Your task to perform on an android device: turn smart compose on in the gmail app Image 0: 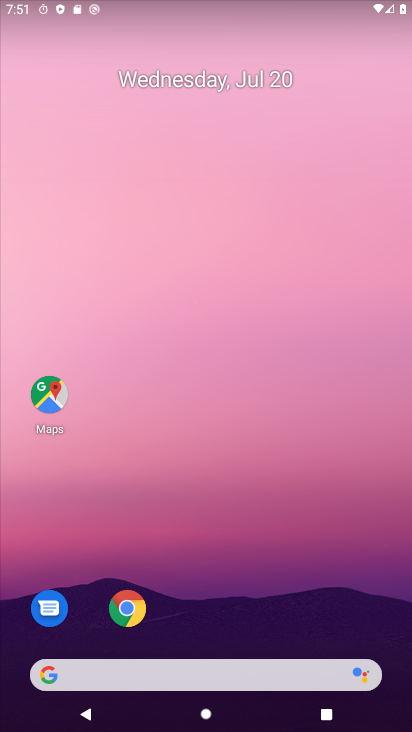
Step 0: drag from (211, 630) to (259, 151)
Your task to perform on an android device: turn smart compose on in the gmail app Image 1: 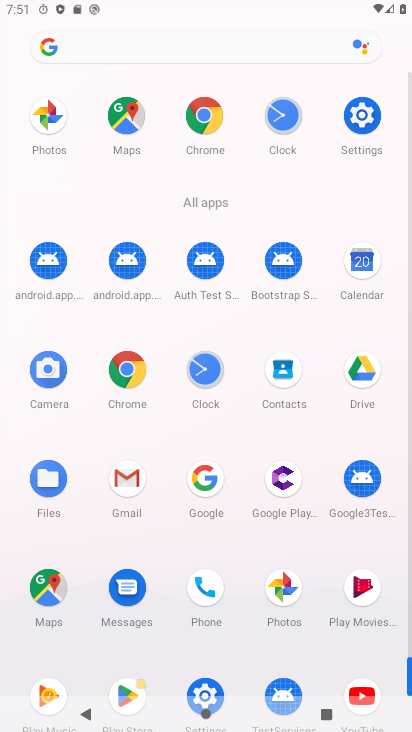
Step 1: click (122, 492)
Your task to perform on an android device: turn smart compose on in the gmail app Image 2: 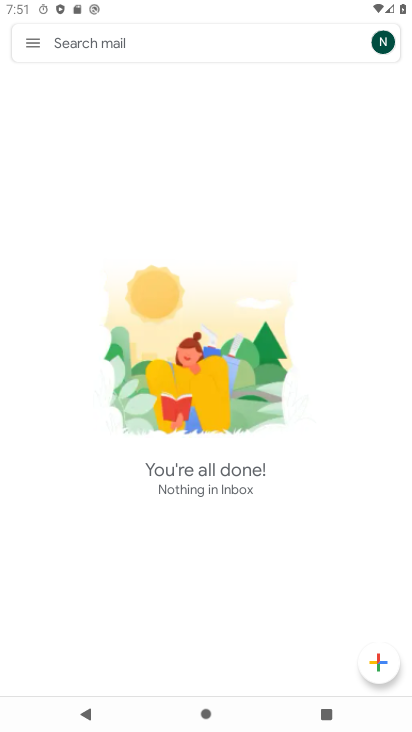
Step 2: click (37, 41)
Your task to perform on an android device: turn smart compose on in the gmail app Image 3: 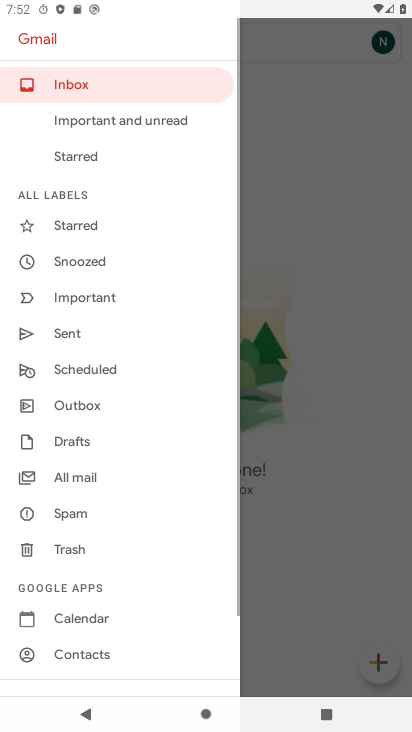
Step 3: drag from (89, 529) to (111, 109)
Your task to perform on an android device: turn smart compose on in the gmail app Image 4: 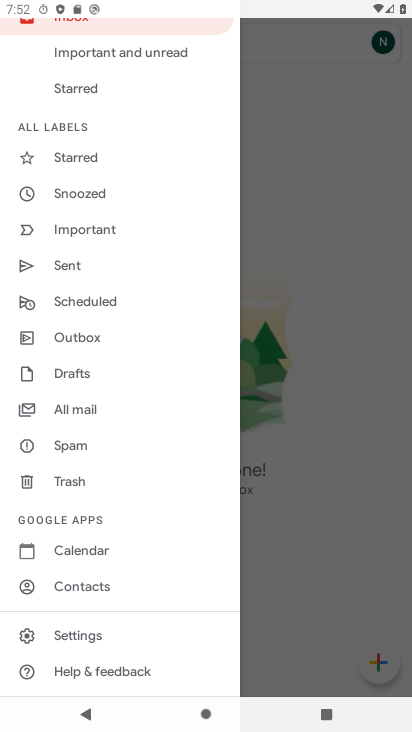
Step 4: click (95, 641)
Your task to perform on an android device: turn smart compose on in the gmail app Image 5: 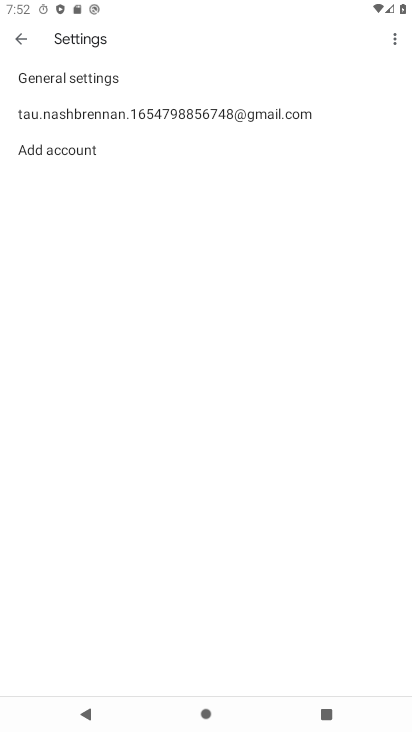
Step 5: click (121, 116)
Your task to perform on an android device: turn smart compose on in the gmail app Image 6: 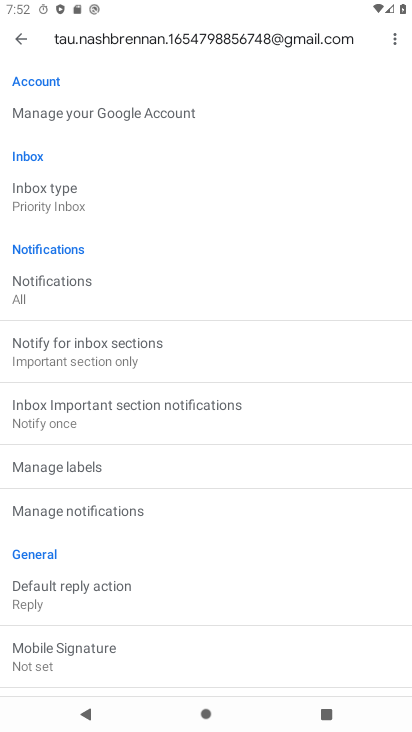
Step 6: task complete